Your task to perform on an android device: What is the speed of a skateboard? Image 0: 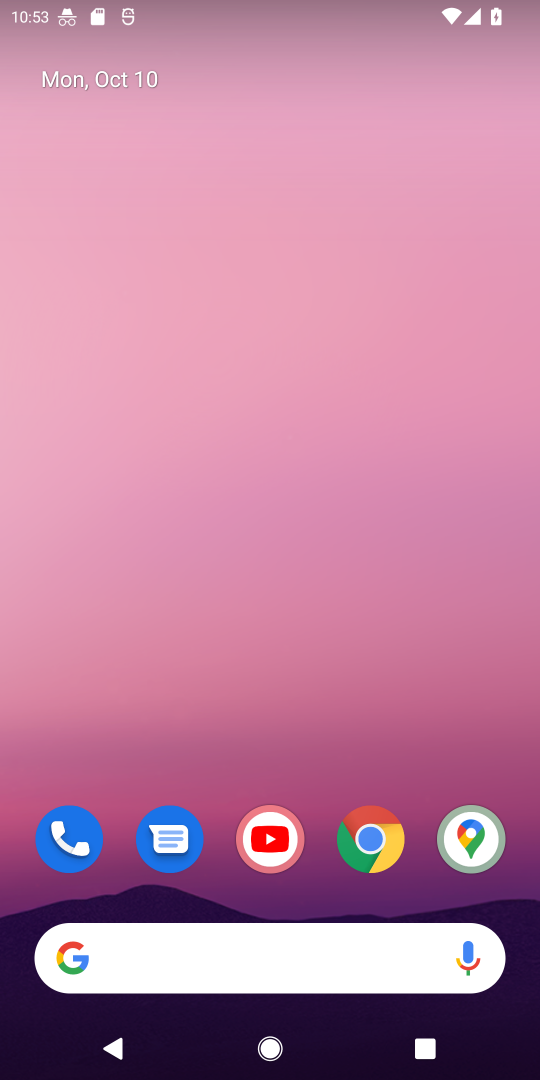
Step 0: drag from (301, 905) to (509, 2)
Your task to perform on an android device: What is the speed of a skateboard? Image 1: 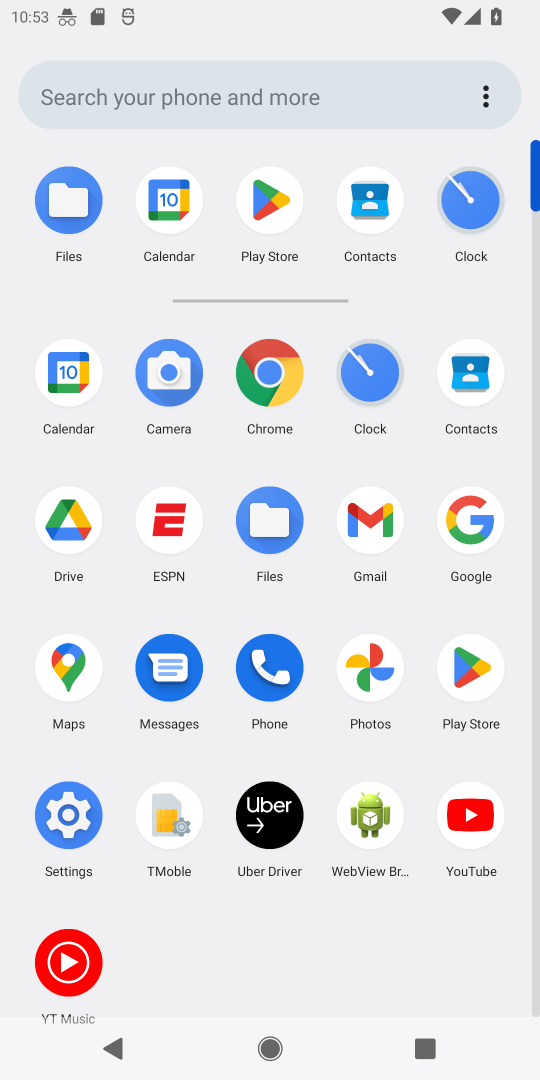
Step 1: click (265, 369)
Your task to perform on an android device: What is the speed of a skateboard? Image 2: 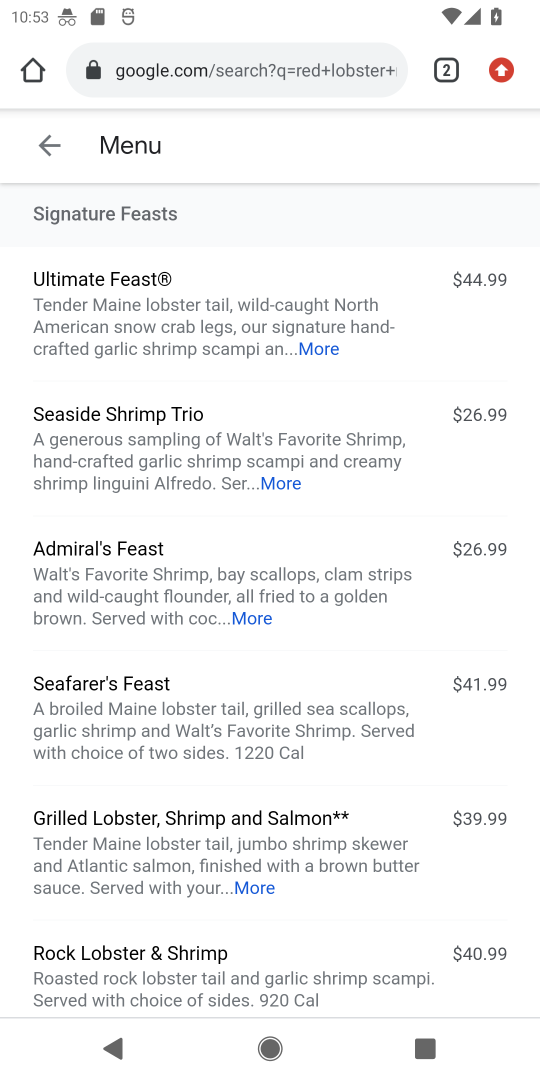
Step 2: click (163, 72)
Your task to perform on an android device: What is the speed of a skateboard? Image 3: 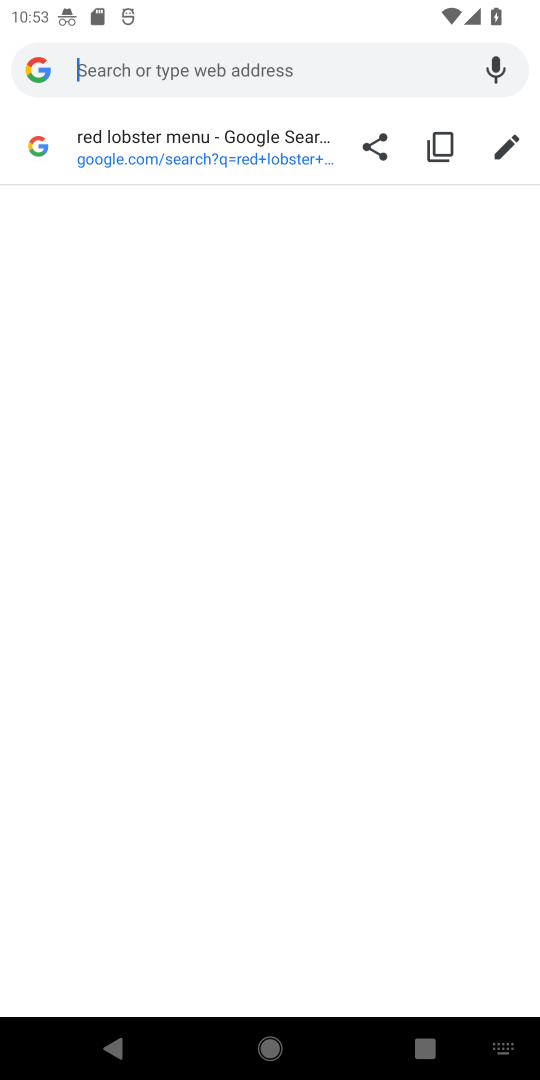
Step 3: type "What is the speed of skateboard?"
Your task to perform on an android device: What is the speed of a skateboard? Image 4: 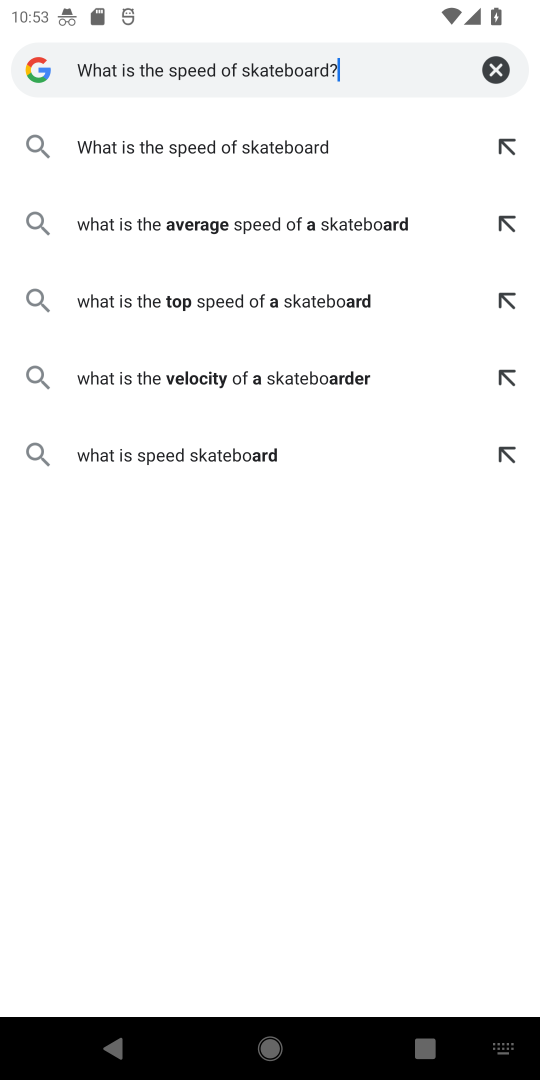
Step 4: press enter
Your task to perform on an android device: What is the speed of a skateboard? Image 5: 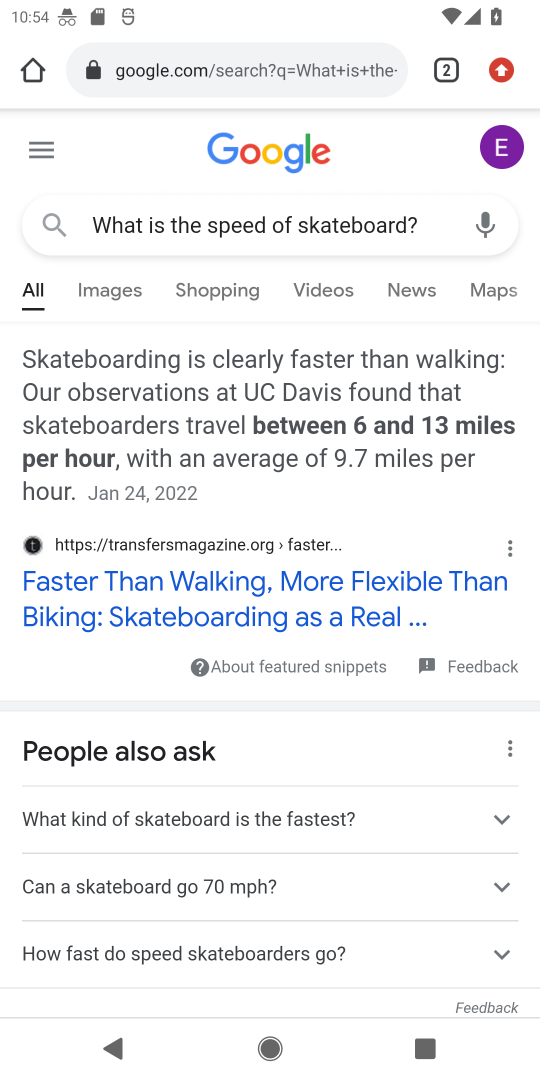
Step 5: task complete